Your task to perform on an android device: move an email to a new category in the gmail app Image 0: 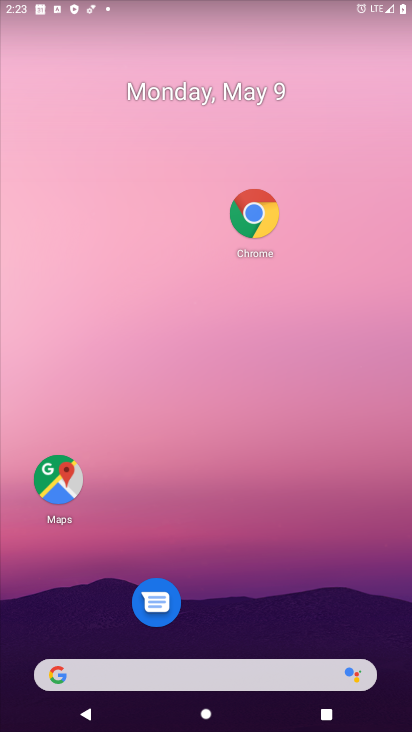
Step 0: drag from (305, 612) to (329, 174)
Your task to perform on an android device: move an email to a new category in the gmail app Image 1: 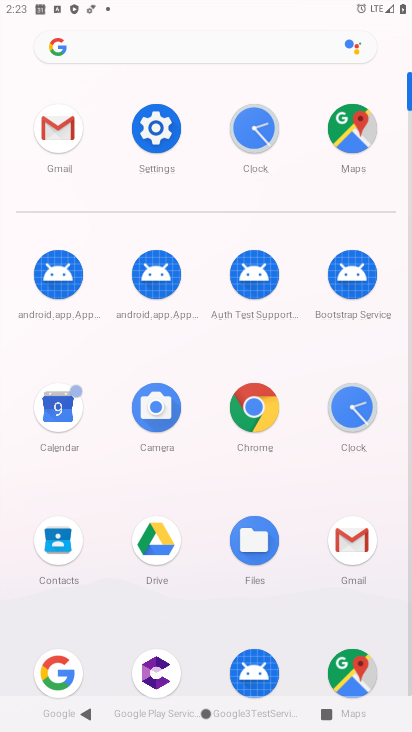
Step 1: click (351, 547)
Your task to perform on an android device: move an email to a new category in the gmail app Image 2: 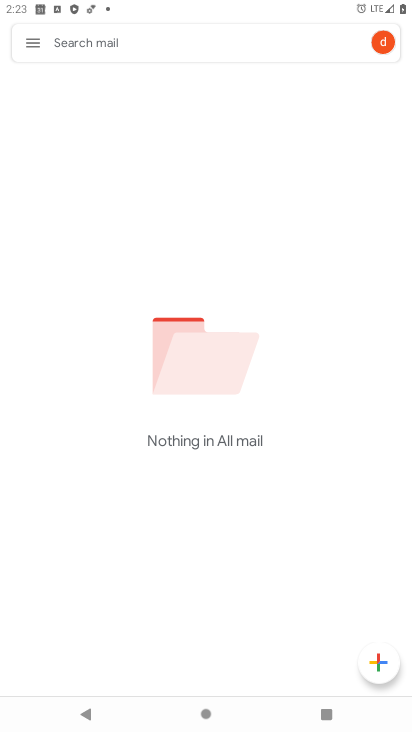
Step 2: click (36, 45)
Your task to perform on an android device: move an email to a new category in the gmail app Image 3: 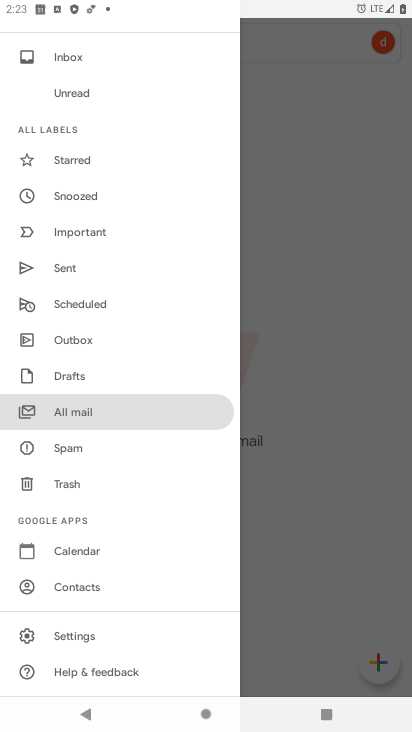
Step 3: task complete